Your task to perform on an android device: open app "Contacts" Image 0: 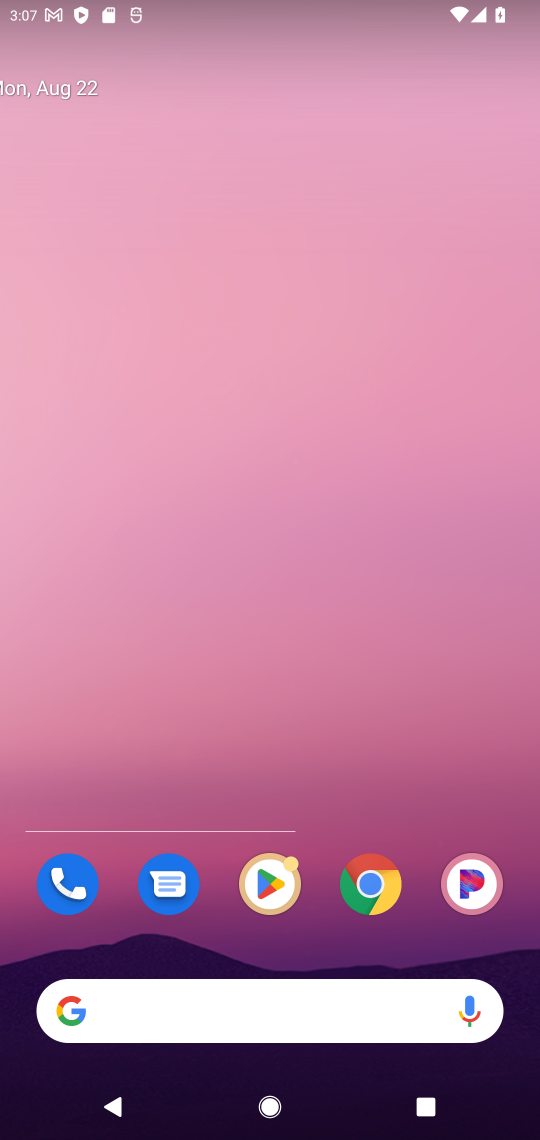
Step 0: click (497, 301)
Your task to perform on an android device: open app "Contacts" Image 1: 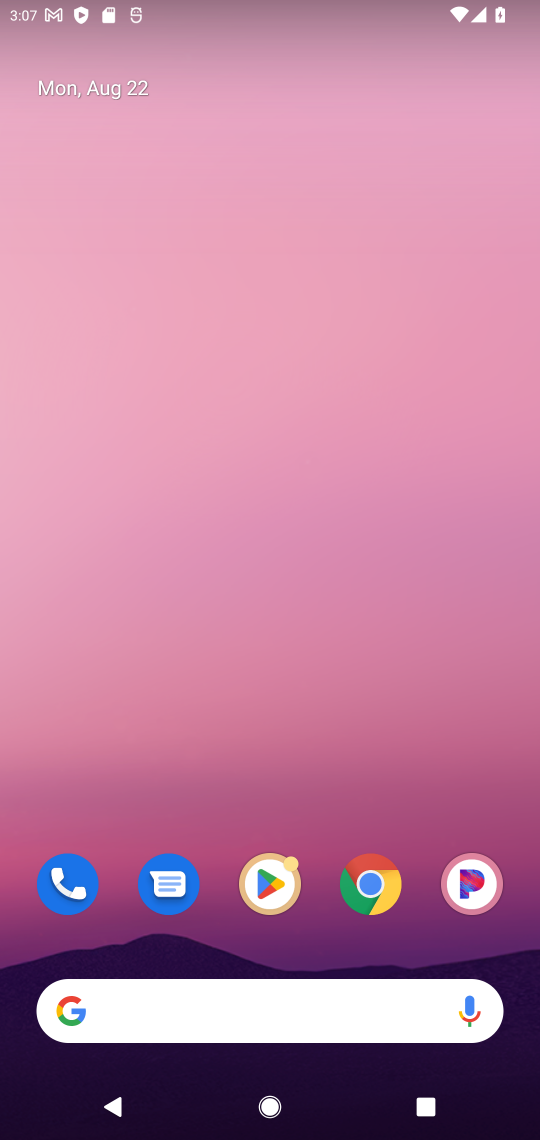
Step 1: click (271, 884)
Your task to perform on an android device: open app "Contacts" Image 2: 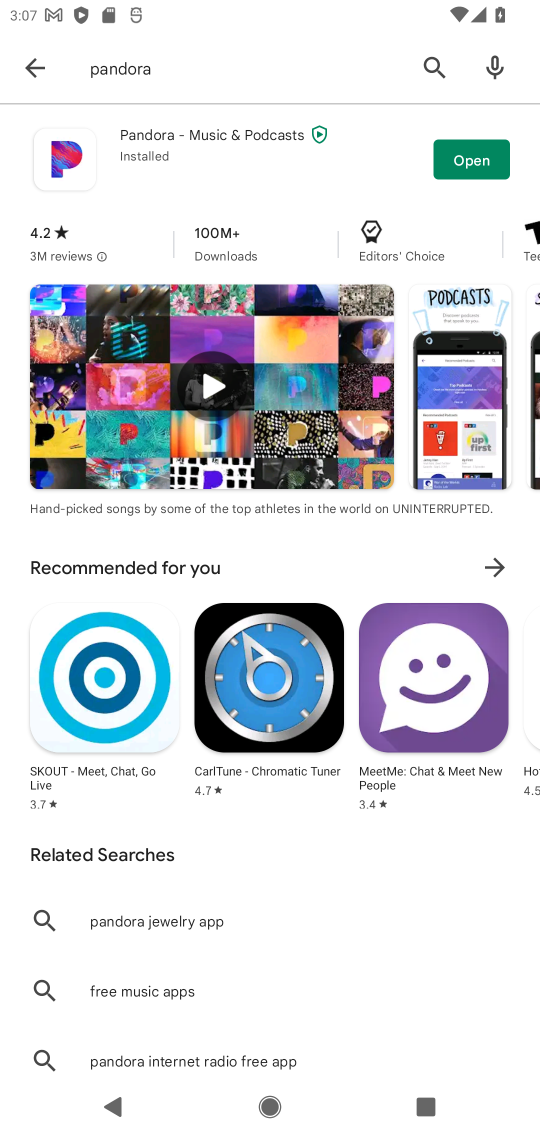
Step 2: click (185, 74)
Your task to perform on an android device: open app "Contacts" Image 3: 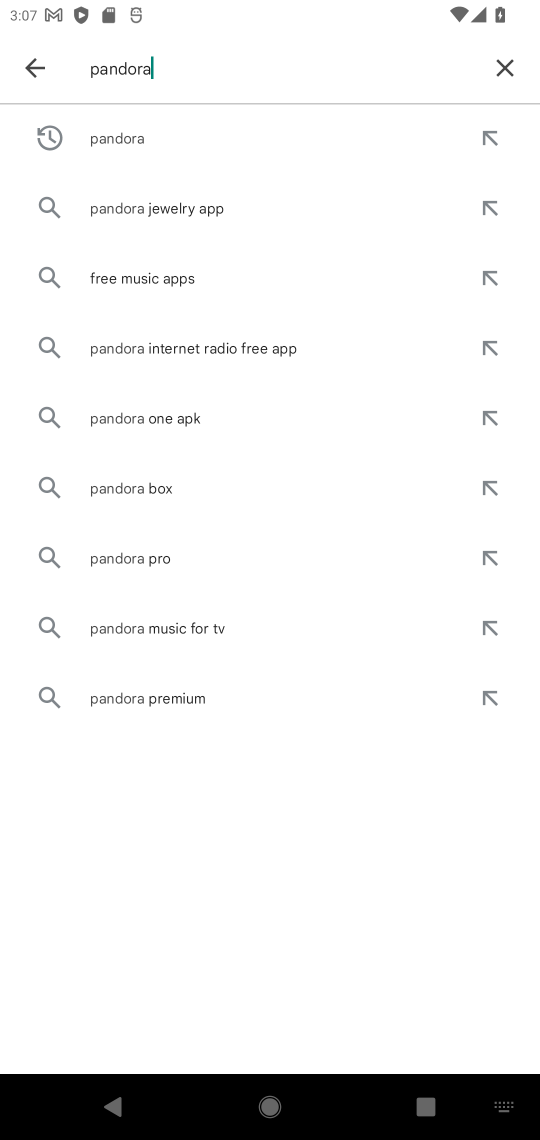
Step 3: click (505, 66)
Your task to perform on an android device: open app "Contacts" Image 4: 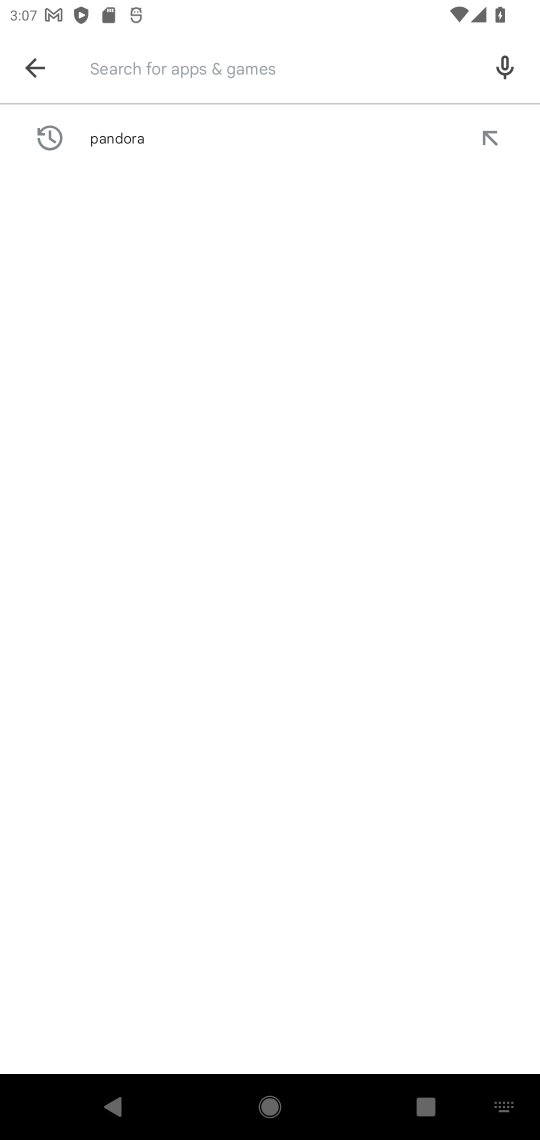
Step 4: type "contacts"
Your task to perform on an android device: open app "Contacts" Image 5: 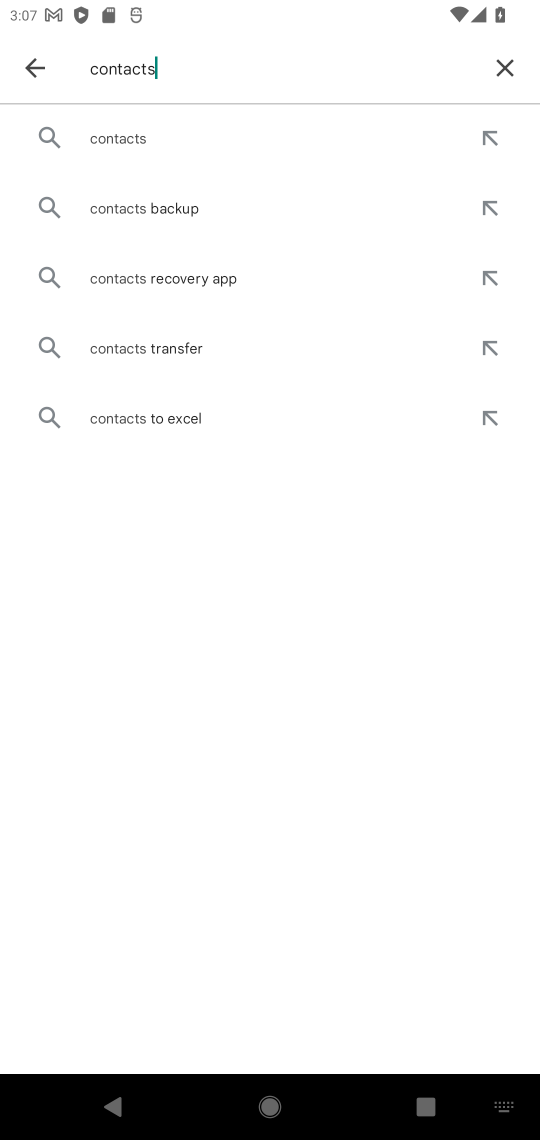
Step 5: click (107, 161)
Your task to perform on an android device: open app "Contacts" Image 6: 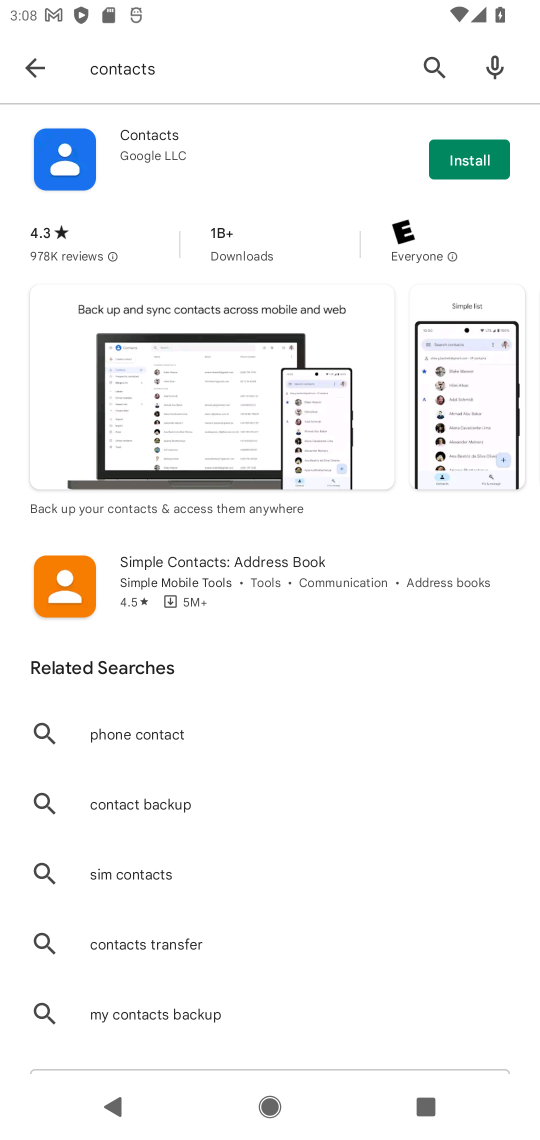
Step 6: task complete